Your task to perform on an android device: Is it going to rain this weekend? Image 0: 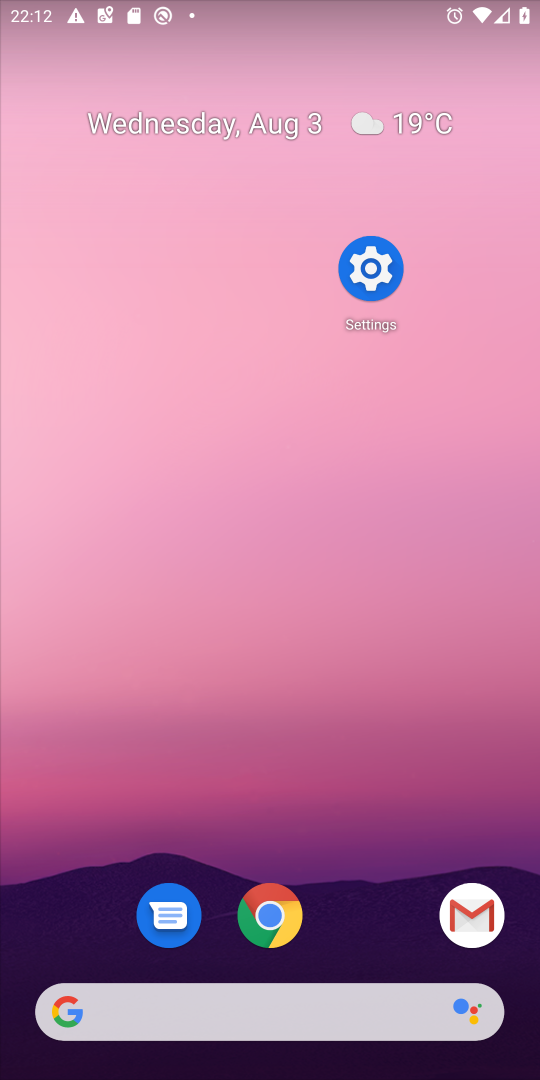
Step 0: press home button
Your task to perform on an android device: Is it going to rain this weekend? Image 1: 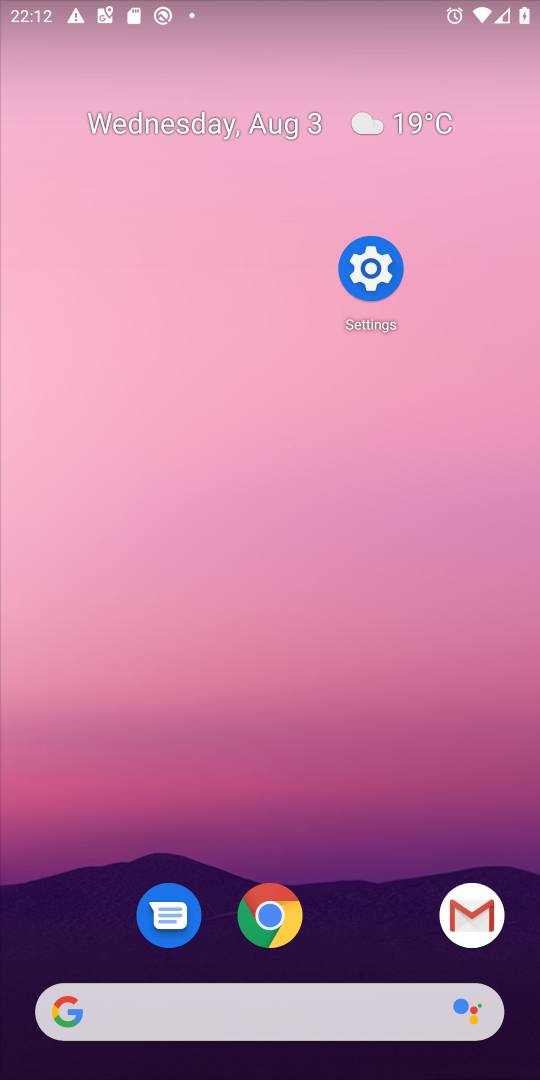
Step 1: click (261, 1015)
Your task to perform on an android device: Is it going to rain this weekend? Image 2: 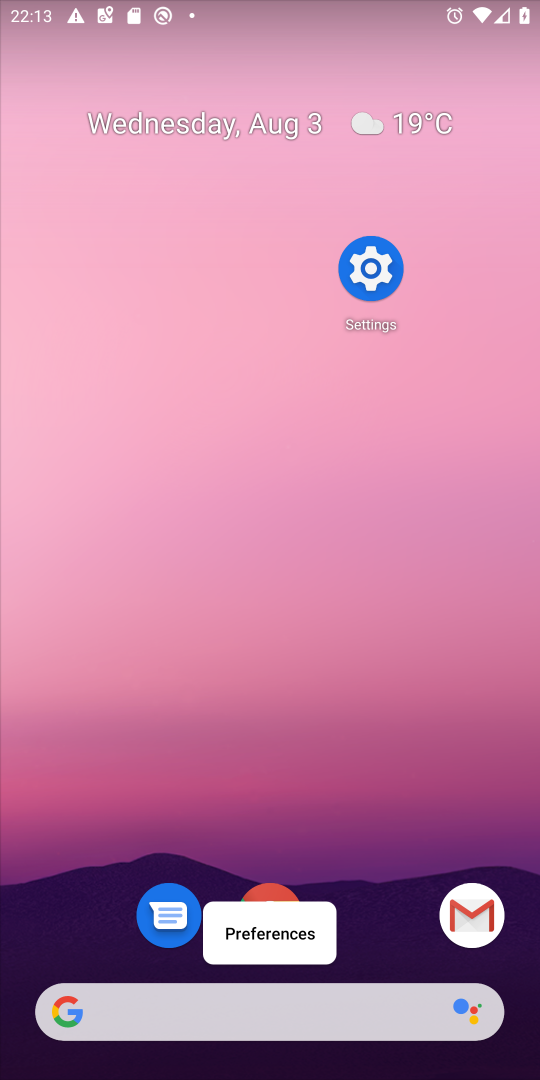
Step 2: click (186, 1023)
Your task to perform on an android device: Is it going to rain this weekend? Image 3: 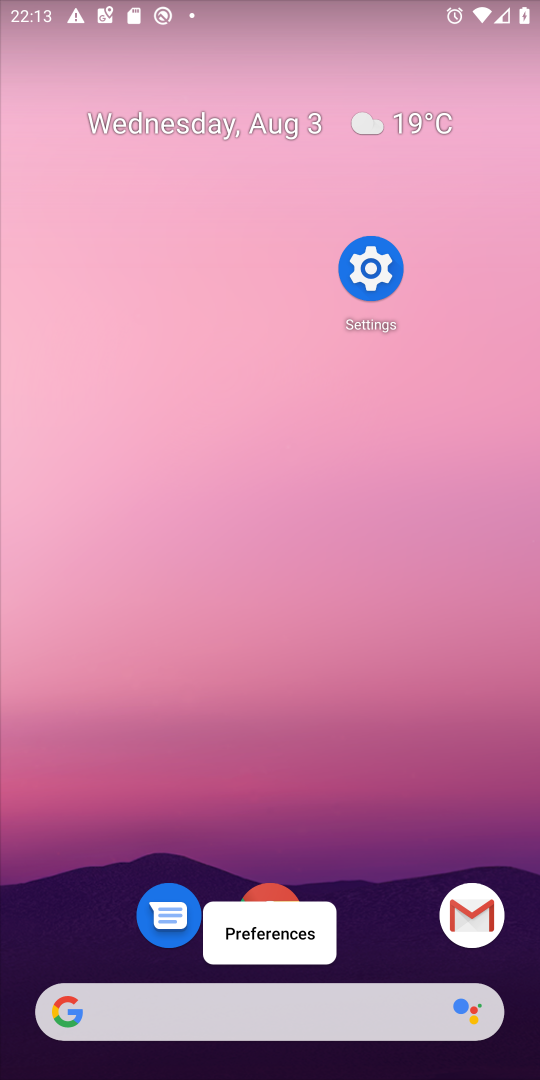
Step 3: click (152, 1035)
Your task to perform on an android device: Is it going to rain this weekend? Image 4: 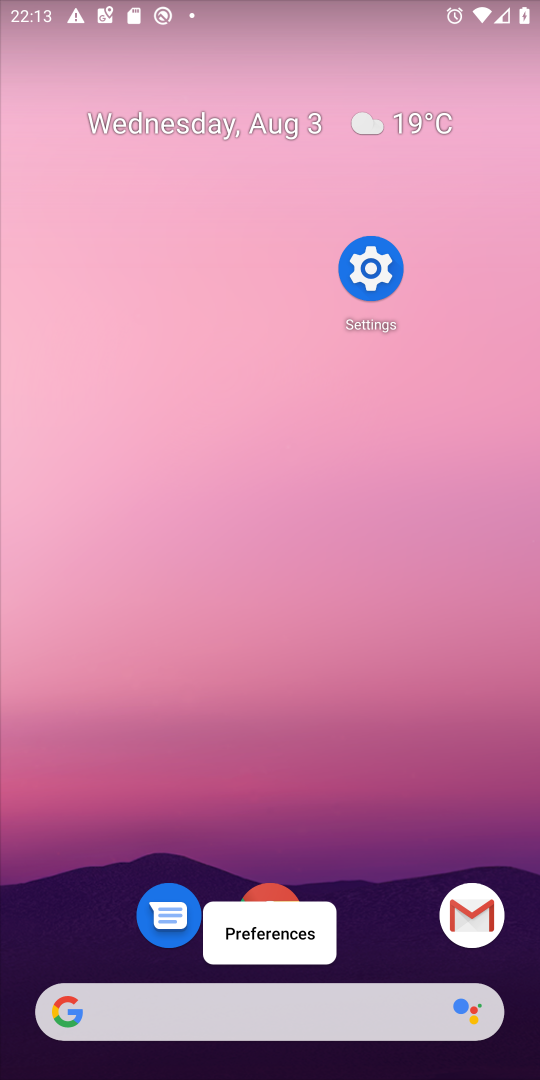
Step 4: click (310, 1030)
Your task to perform on an android device: Is it going to rain this weekend? Image 5: 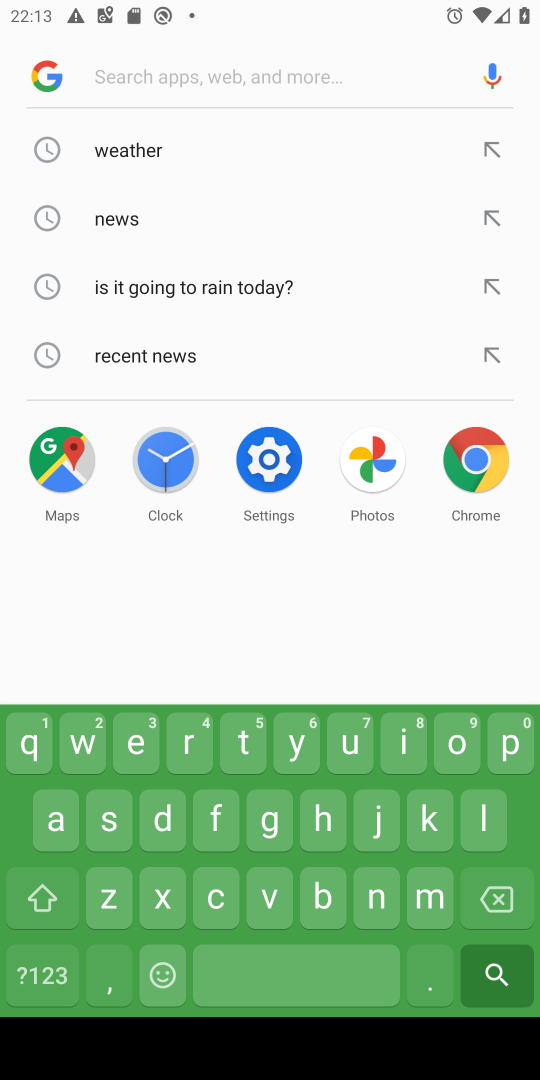
Step 5: click (178, 144)
Your task to perform on an android device: Is it going to rain this weekend? Image 6: 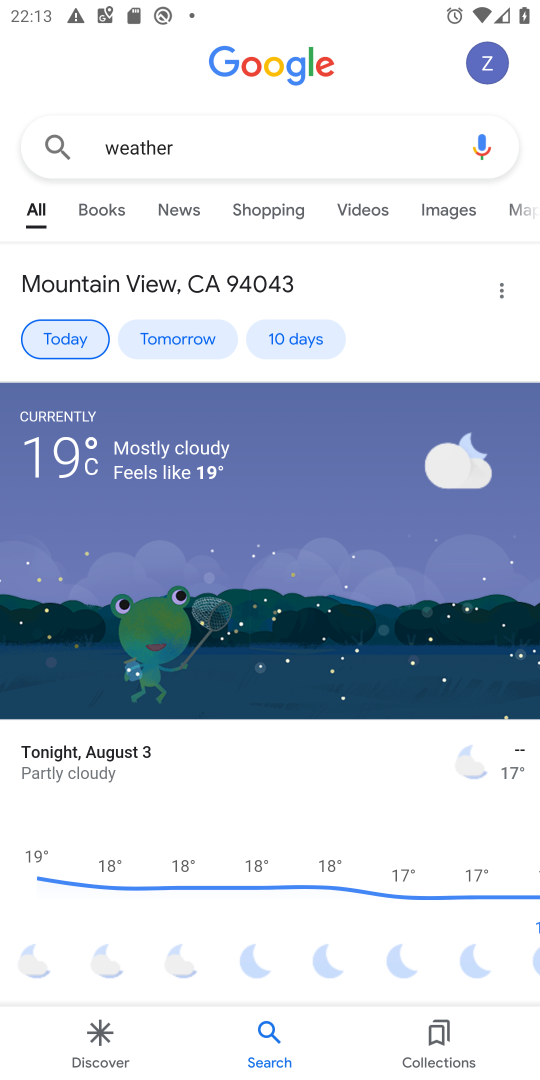
Step 6: click (289, 342)
Your task to perform on an android device: Is it going to rain this weekend? Image 7: 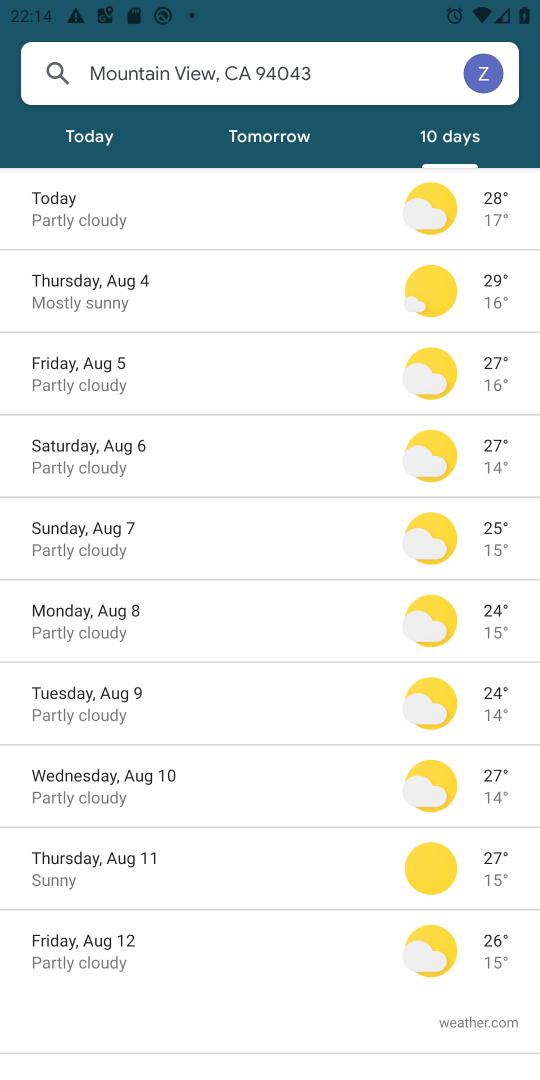
Step 7: task complete